Your task to perform on an android device: check out phone information Image 0: 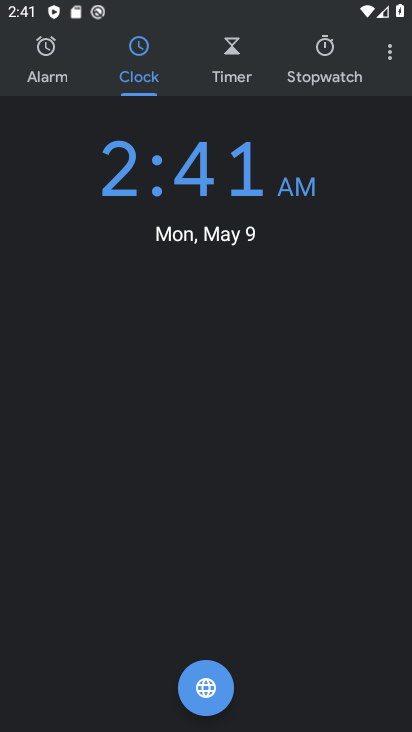
Step 0: press home button
Your task to perform on an android device: check out phone information Image 1: 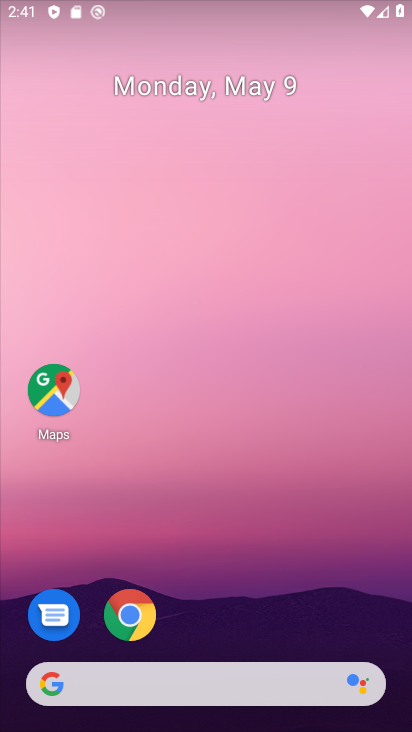
Step 1: drag from (236, 573) to (234, 200)
Your task to perform on an android device: check out phone information Image 2: 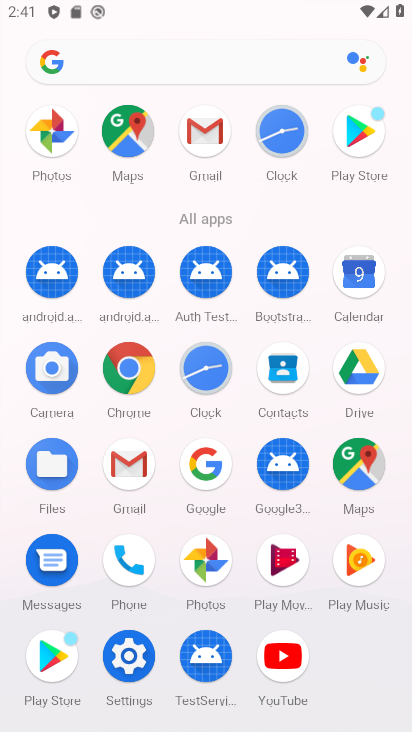
Step 2: click (130, 643)
Your task to perform on an android device: check out phone information Image 3: 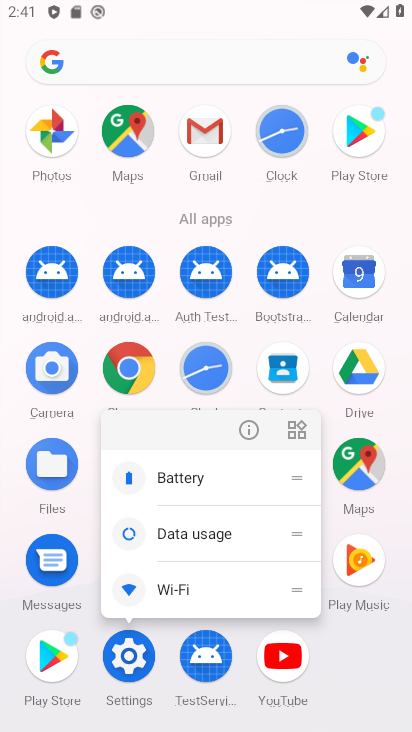
Step 3: click (123, 642)
Your task to perform on an android device: check out phone information Image 4: 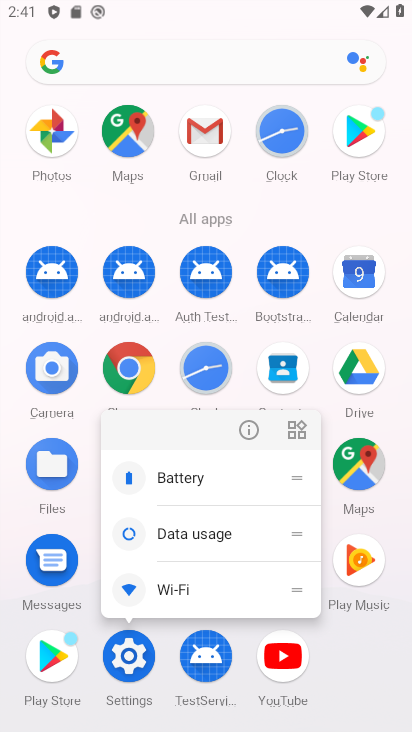
Step 4: click (123, 642)
Your task to perform on an android device: check out phone information Image 5: 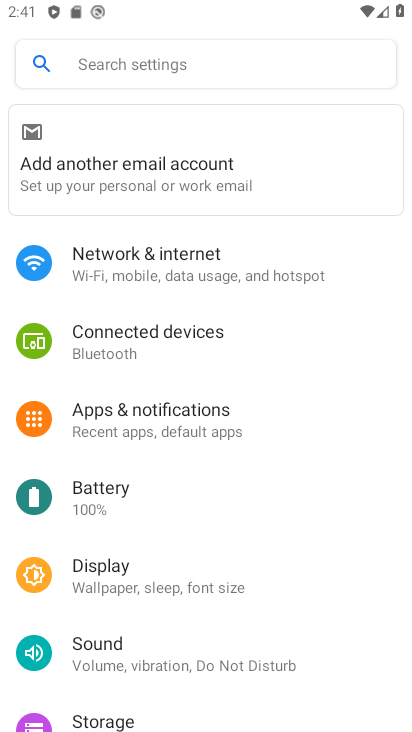
Step 5: drag from (171, 556) to (191, 91)
Your task to perform on an android device: check out phone information Image 6: 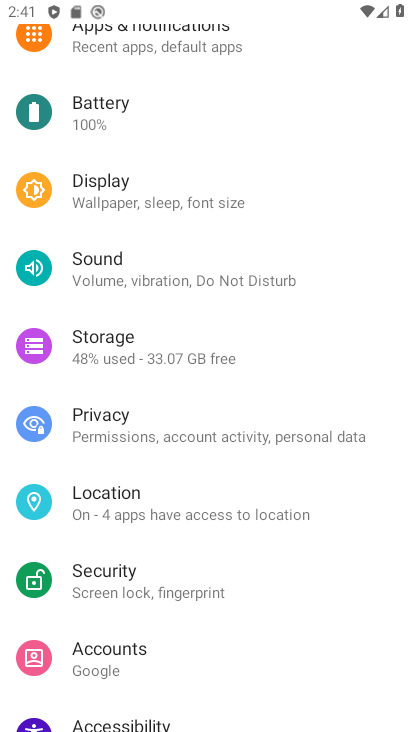
Step 6: drag from (188, 636) to (206, 156)
Your task to perform on an android device: check out phone information Image 7: 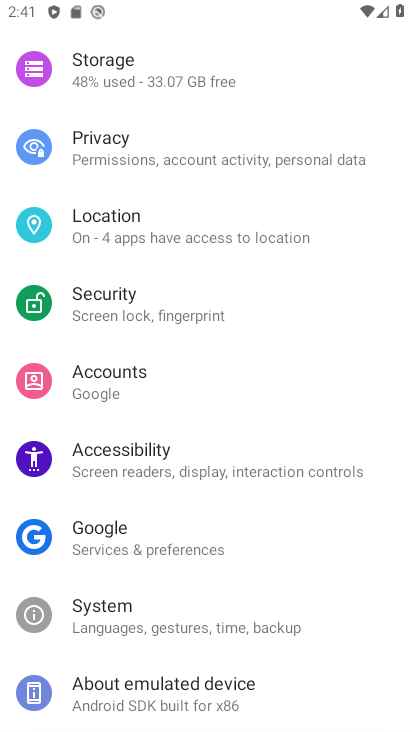
Step 7: drag from (159, 656) to (207, 229)
Your task to perform on an android device: check out phone information Image 8: 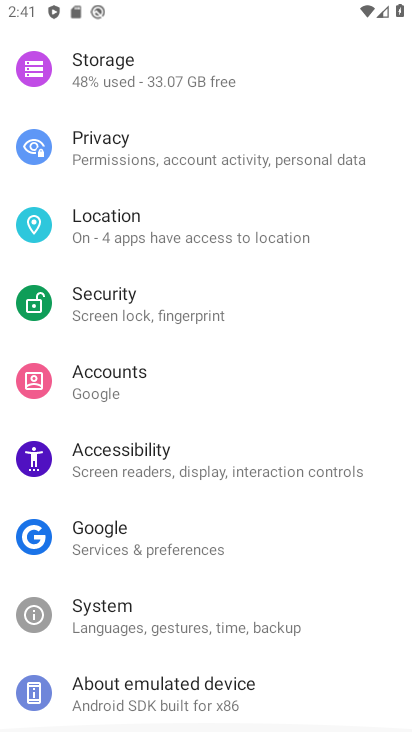
Step 8: click (90, 694)
Your task to perform on an android device: check out phone information Image 9: 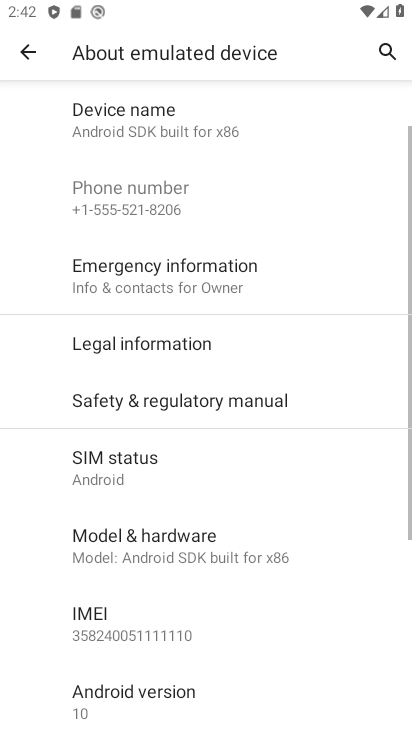
Step 9: task complete